Your task to perform on an android device: Open CNN.com Image 0: 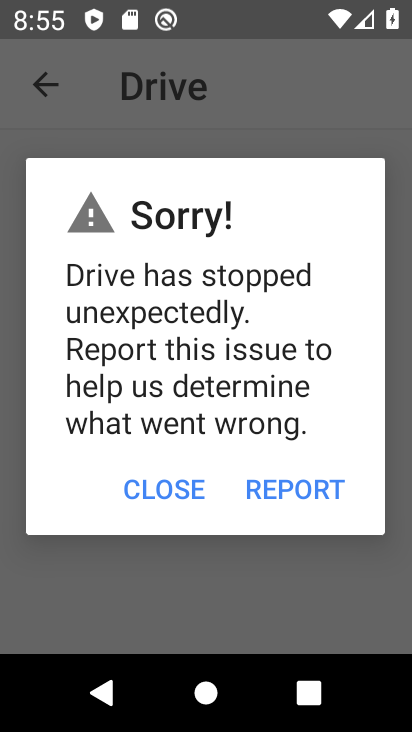
Step 0: press home button
Your task to perform on an android device: Open CNN.com Image 1: 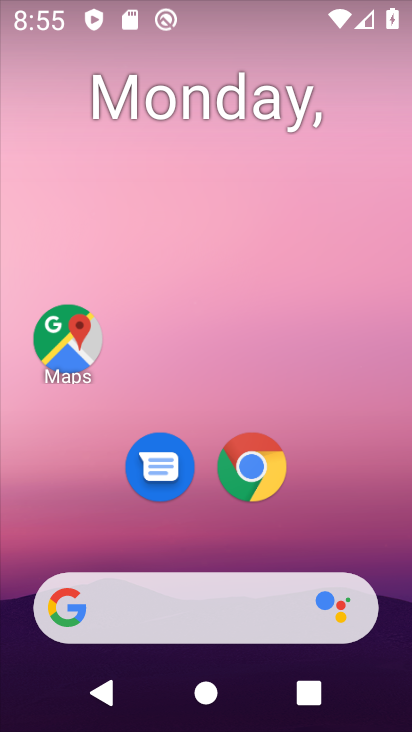
Step 1: click (199, 608)
Your task to perform on an android device: Open CNN.com Image 2: 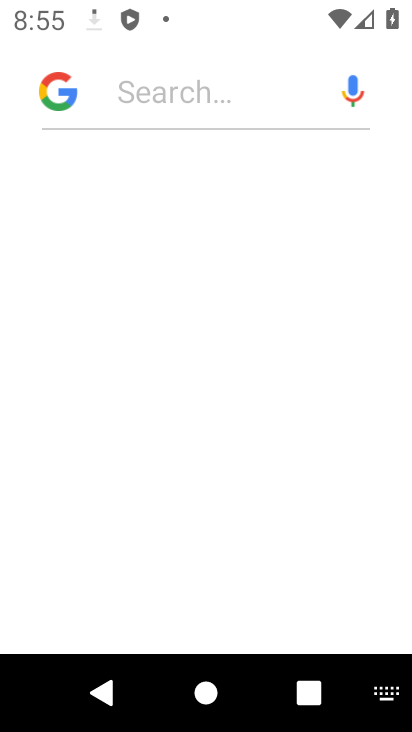
Step 2: click (153, 100)
Your task to perform on an android device: Open CNN.com Image 3: 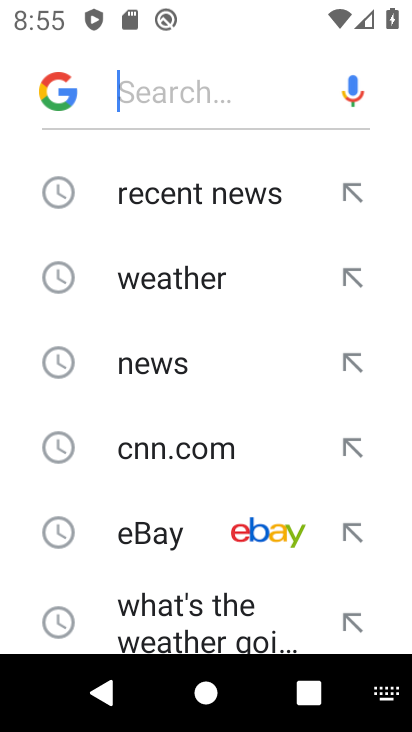
Step 3: click (130, 458)
Your task to perform on an android device: Open CNN.com Image 4: 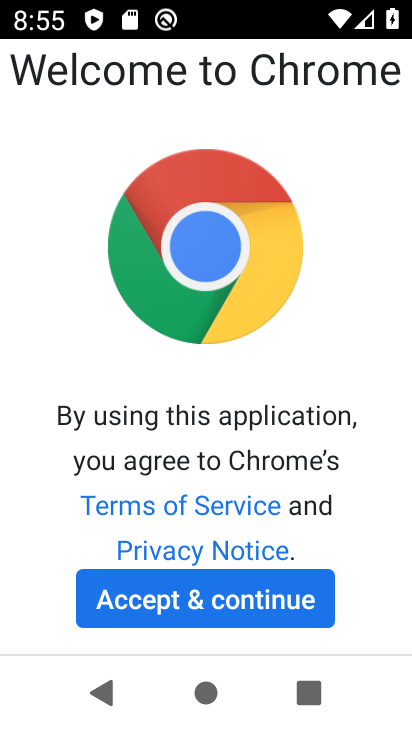
Step 4: click (263, 576)
Your task to perform on an android device: Open CNN.com Image 5: 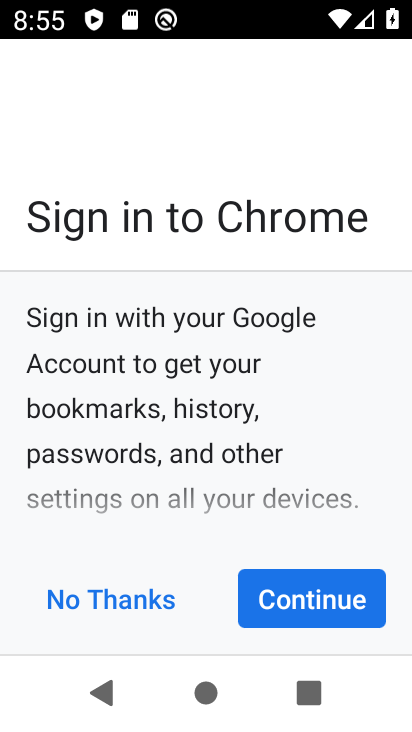
Step 5: click (270, 597)
Your task to perform on an android device: Open CNN.com Image 6: 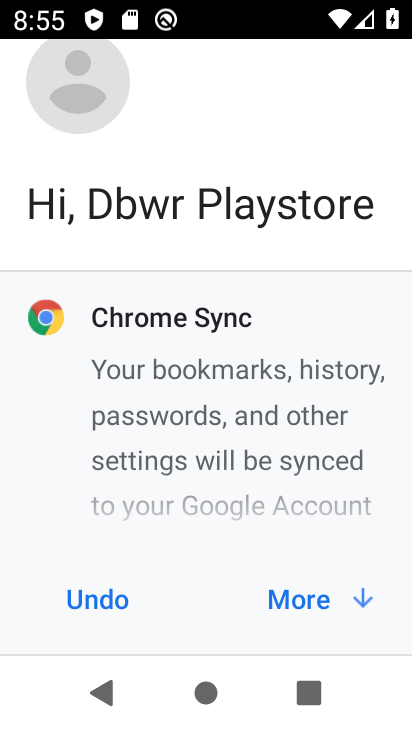
Step 6: click (270, 597)
Your task to perform on an android device: Open CNN.com Image 7: 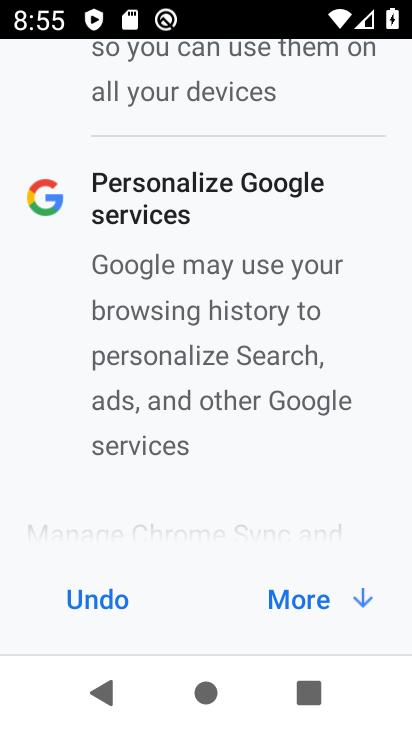
Step 7: click (270, 597)
Your task to perform on an android device: Open CNN.com Image 8: 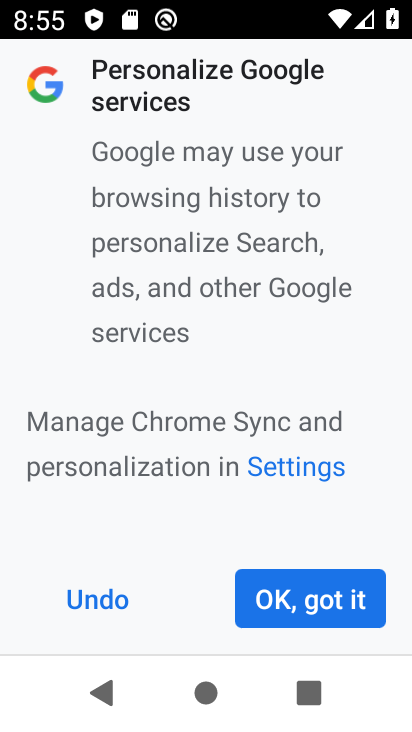
Step 8: click (270, 597)
Your task to perform on an android device: Open CNN.com Image 9: 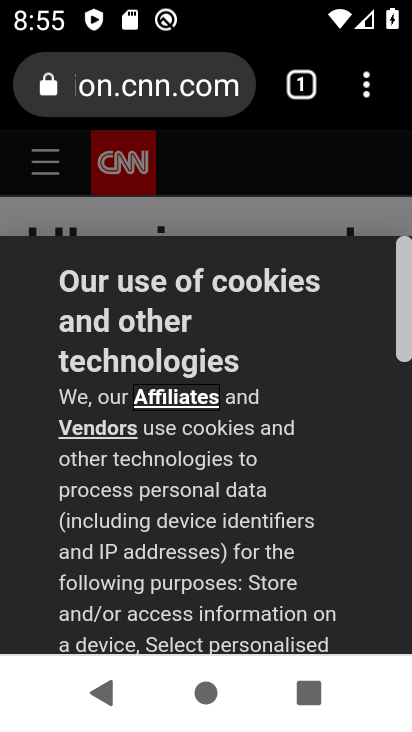
Step 9: task complete